Your task to perform on an android device: open chrome privacy settings Image 0: 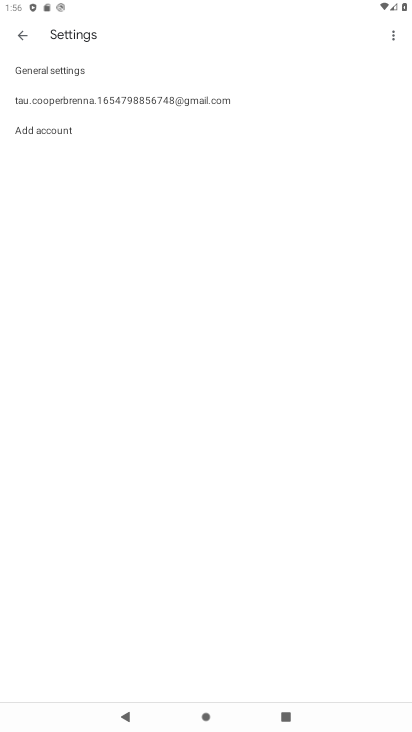
Step 0: press home button
Your task to perform on an android device: open chrome privacy settings Image 1: 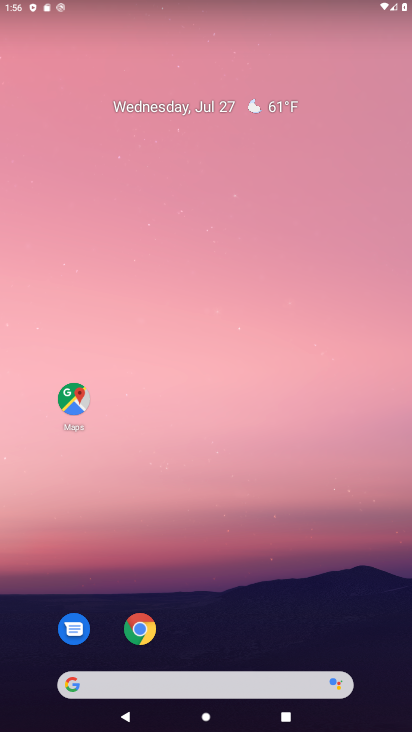
Step 1: click (140, 629)
Your task to perform on an android device: open chrome privacy settings Image 2: 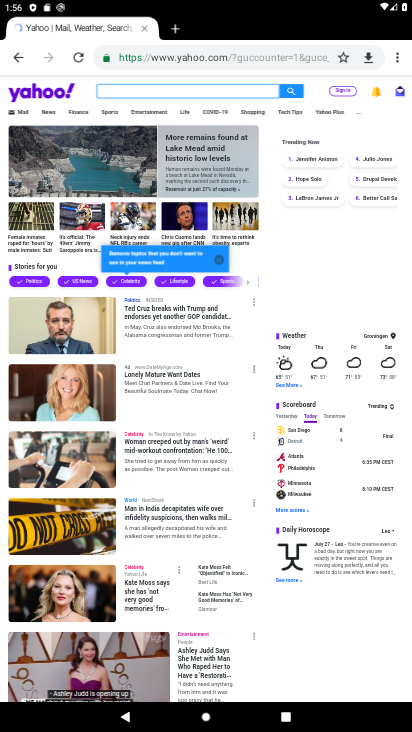
Step 2: click (398, 57)
Your task to perform on an android device: open chrome privacy settings Image 3: 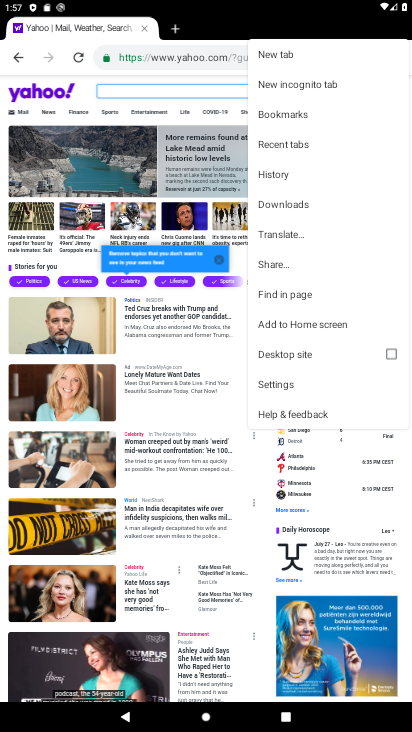
Step 3: click (278, 383)
Your task to perform on an android device: open chrome privacy settings Image 4: 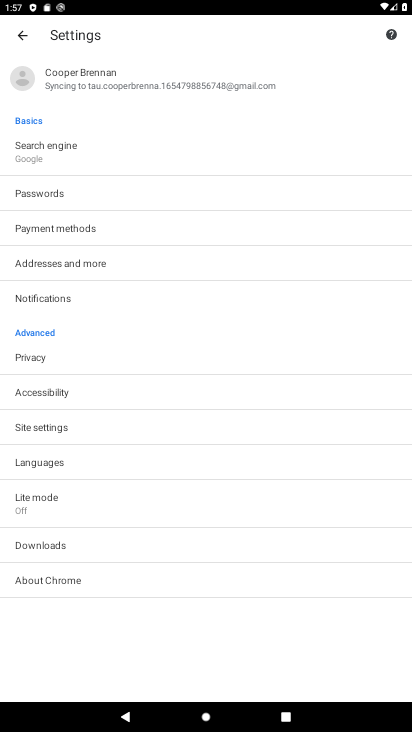
Step 4: click (36, 357)
Your task to perform on an android device: open chrome privacy settings Image 5: 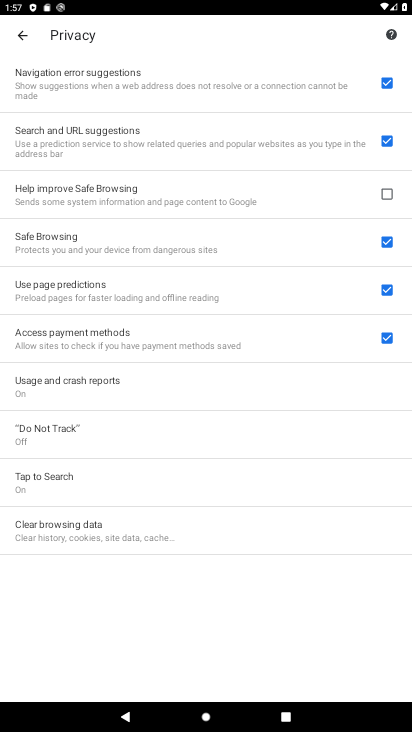
Step 5: task complete